Your task to perform on an android device: change the clock display to digital Image 0: 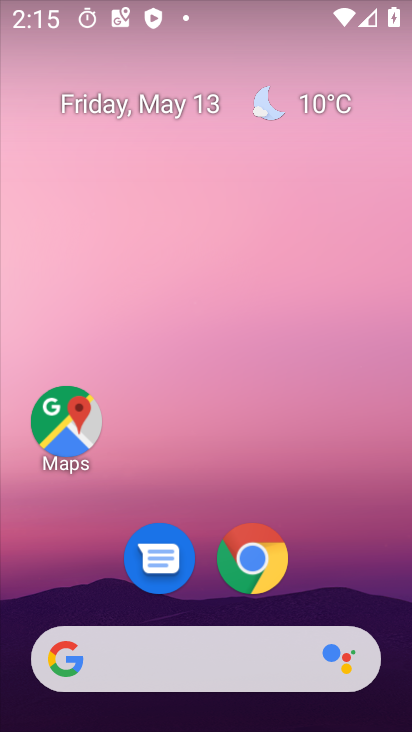
Step 0: drag from (188, 594) to (208, 209)
Your task to perform on an android device: change the clock display to digital Image 1: 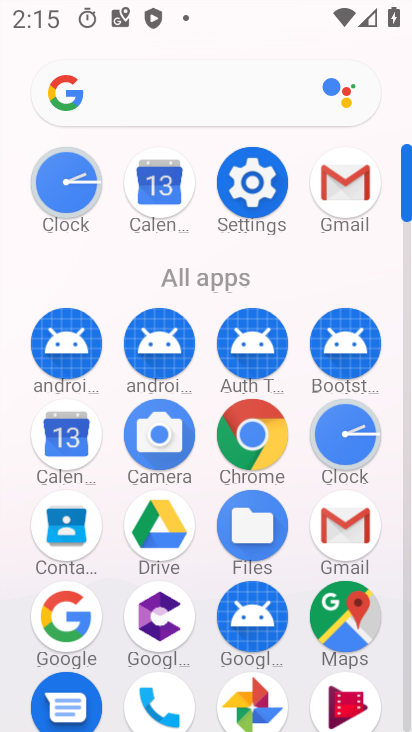
Step 1: click (335, 434)
Your task to perform on an android device: change the clock display to digital Image 2: 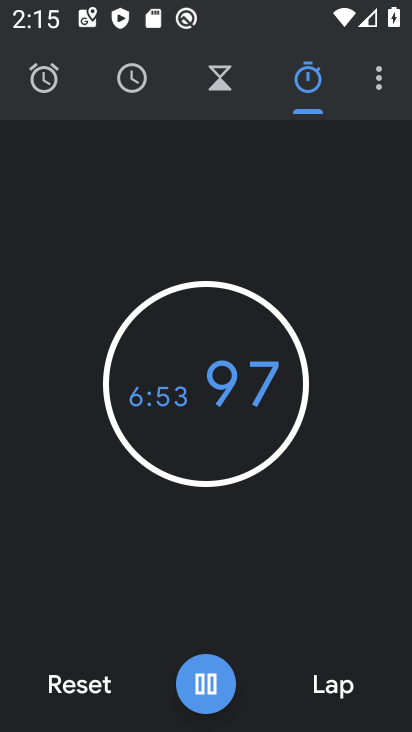
Step 2: click (380, 95)
Your task to perform on an android device: change the clock display to digital Image 3: 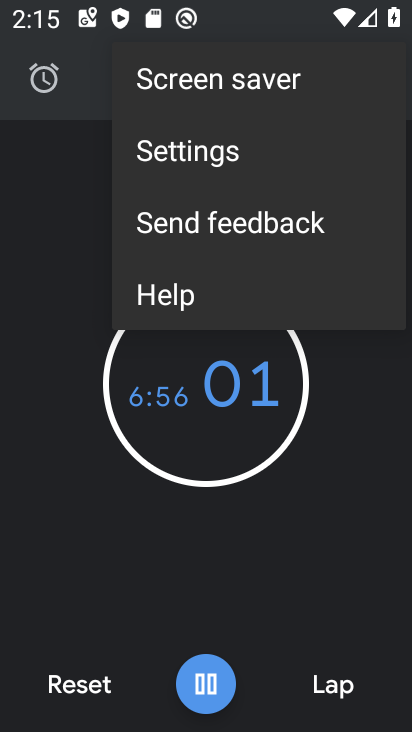
Step 3: click (178, 155)
Your task to perform on an android device: change the clock display to digital Image 4: 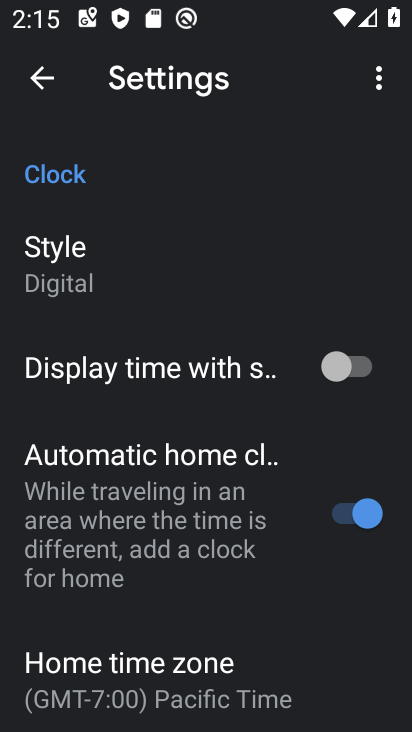
Step 4: click (79, 239)
Your task to perform on an android device: change the clock display to digital Image 5: 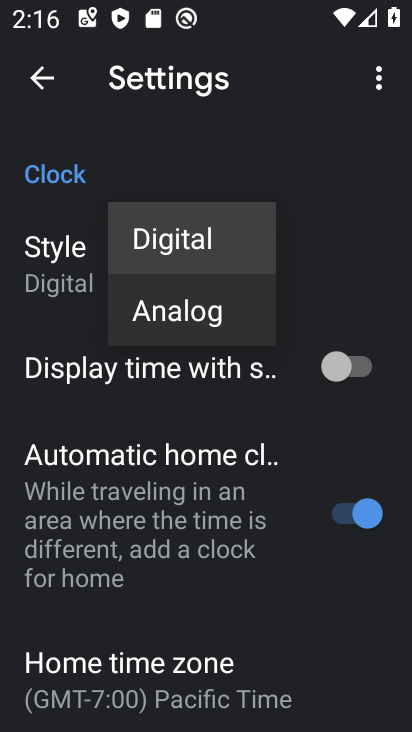
Step 5: task complete